Your task to perform on an android device: see sites visited before in the chrome app Image 0: 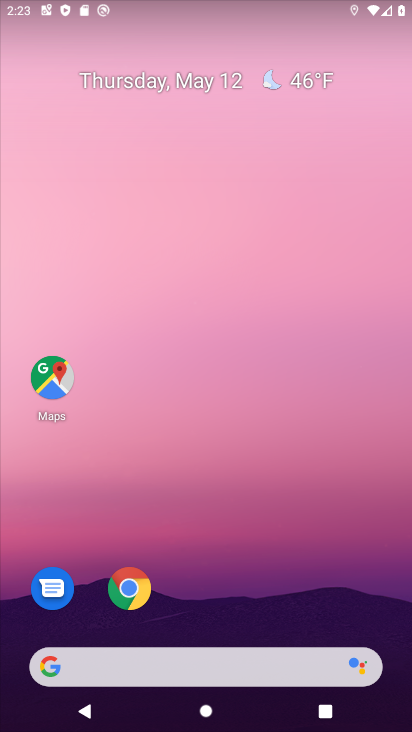
Step 0: drag from (393, 592) to (395, 115)
Your task to perform on an android device: see sites visited before in the chrome app Image 1: 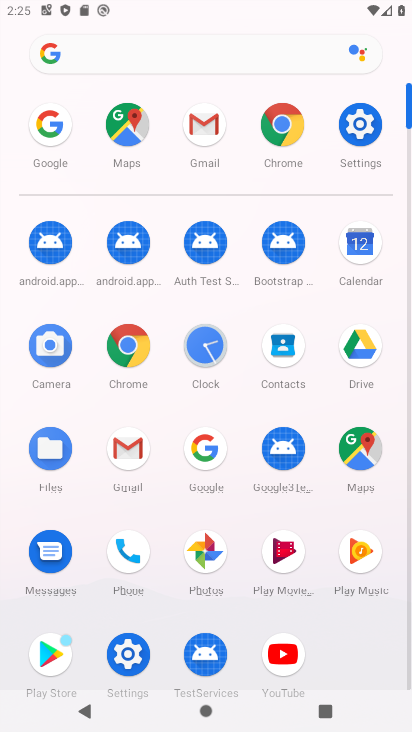
Step 1: click (286, 130)
Your task to perform on an android device: see sites visited before in the chrome app Image 2: 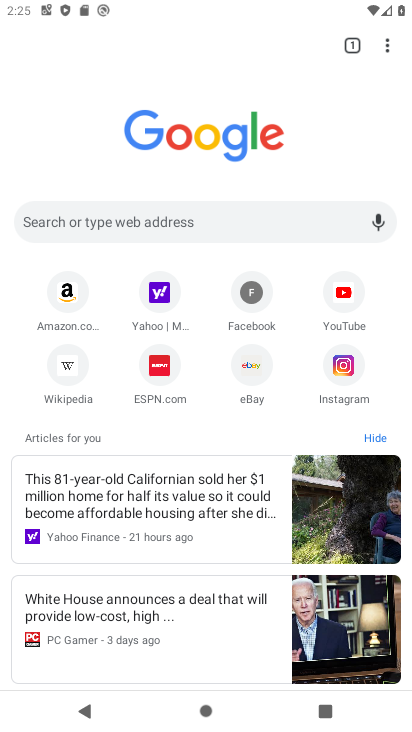
Step 2: click (390, 35)
Your task to perform on an android device: see sites visited before in the chrome app Image 3: 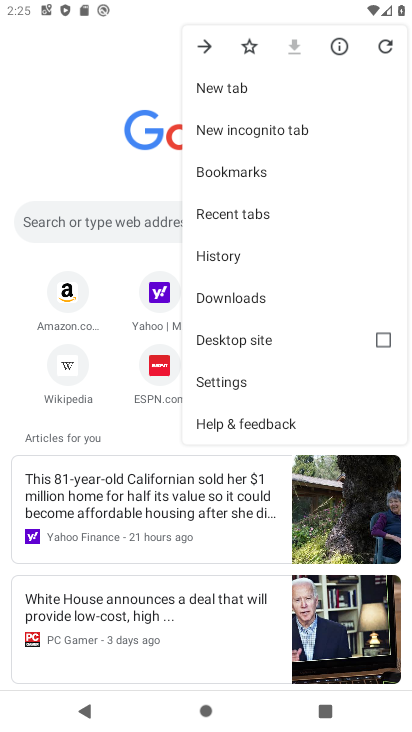
Step 3: click (242, 253)
Your task to perform on an android device: see sites visited before in the chrome app Image 4: 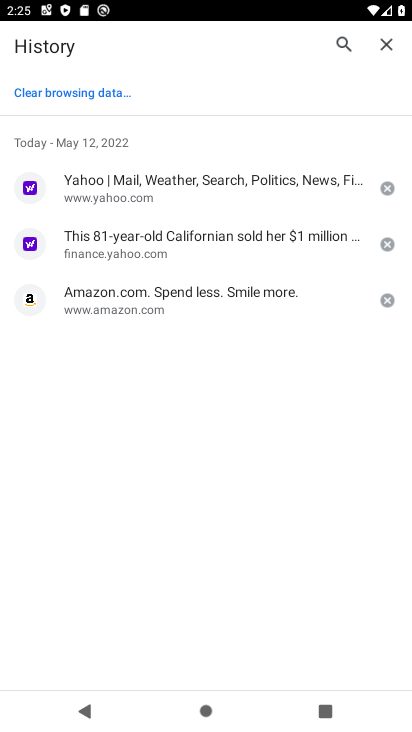
Step 4: click (54, 143)
Your task to perform on an android device: see sites visited before in the chrome app Image 5: 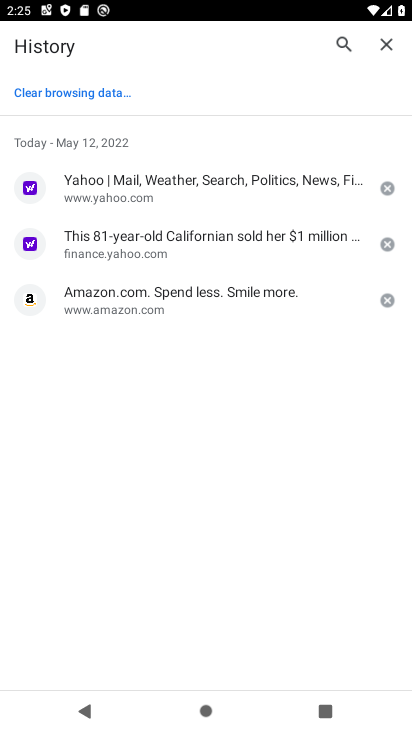
Step 5: click (137, 169)
Your task to perform on an android device: see sites visited before in the chrome app Image 6: 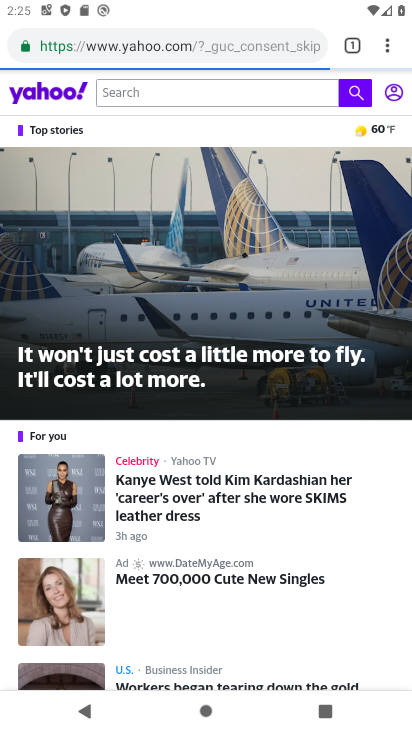
Step 6: task complete